Your task to perform on an android device: Go to location settings Image 0: 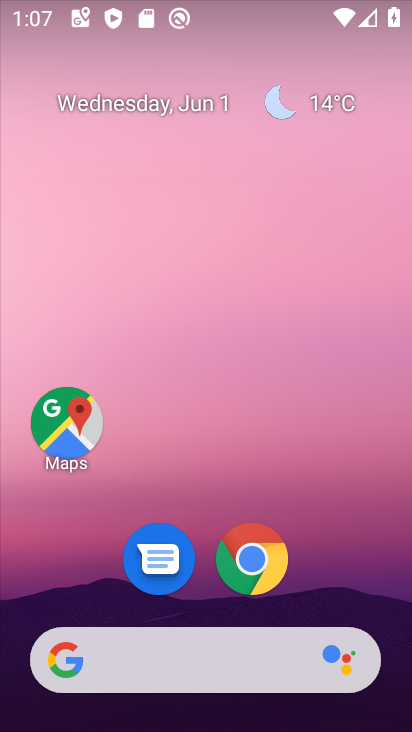
Step 0: drag from (388, 700) to (329, 213)
Your task to perform on an android device: Go to location settings Image 1: 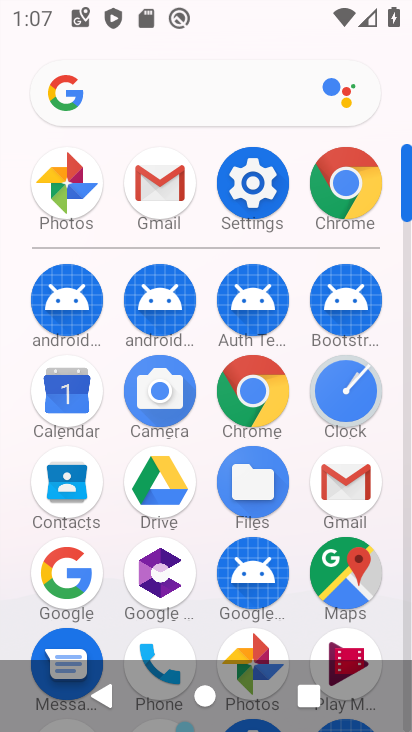
Step 1: click (256, 190)
Your task to perform on an android device: Go to location settings Image 2: 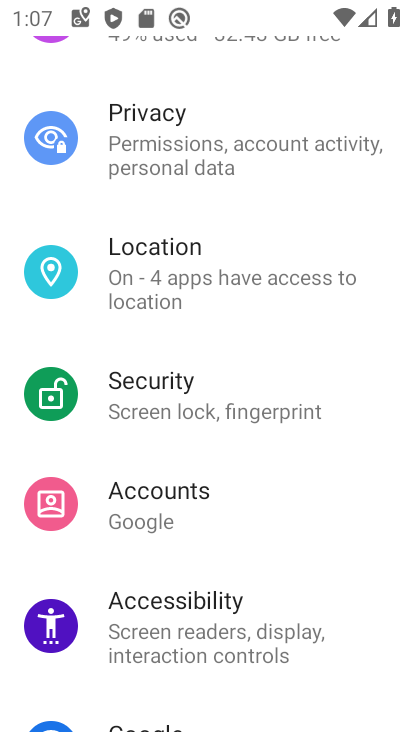
Step 2: click (127, 272)
Your task to perform on an android device: Go to location settings Image 3: 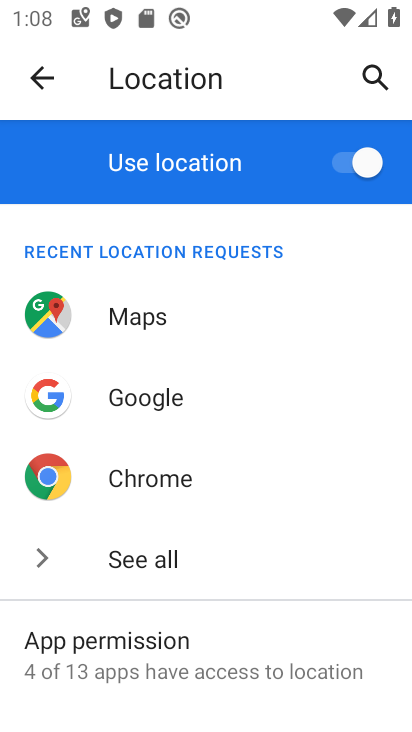
Step 3: task complete